Your task to perform on an android device: Open wifi settings Image 0: 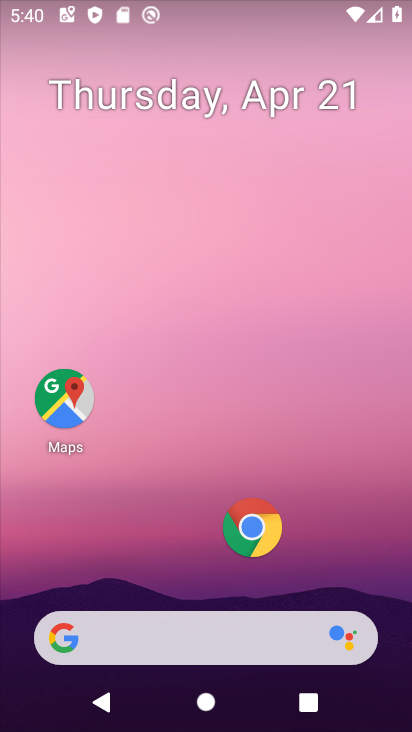
Step 0: drag from (83, 8) to (172, 651)
Your task to perform on an android device: Open wifi settings Image 1: 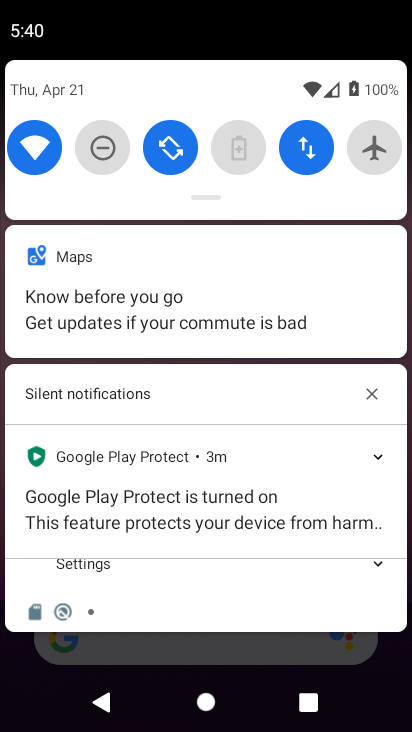
Step 1: click (40, 143)
Your task to perform on an android device: Open wifi settings Image 2: 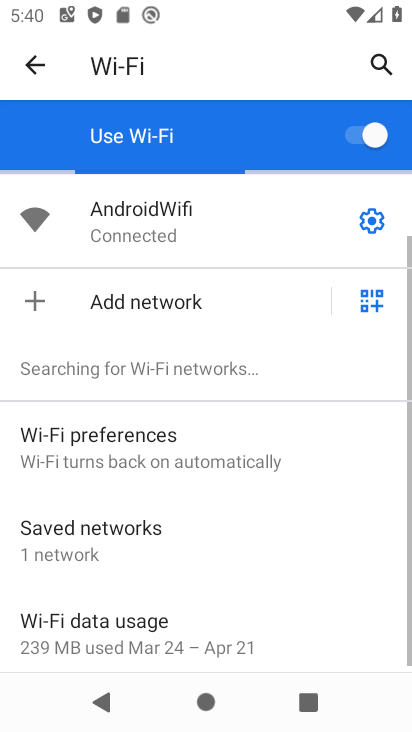
Step 2: task complete